Your task to perform on an android device: Open Reddit.com Image 0: 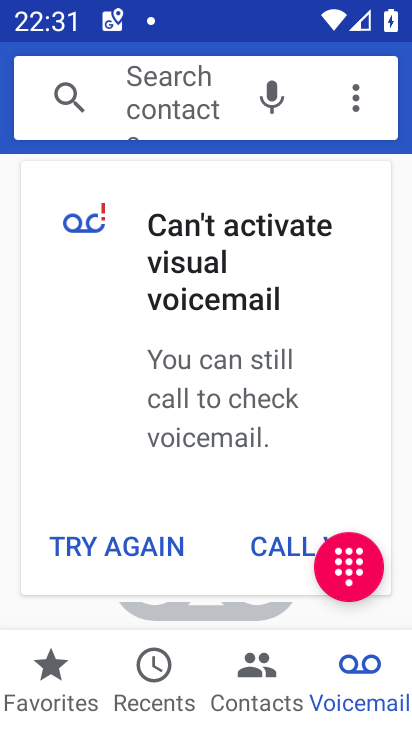
Step 0: press home button
Your task to perform on an android device: Open Reddit.com Image 1: 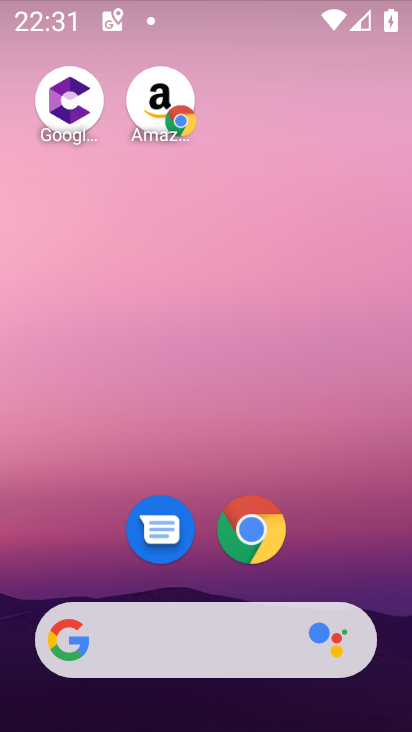
Step 1: drag from (320, 568) to (399, 39)
Your task to perform on an android device: Open Reddit.com Image 2: 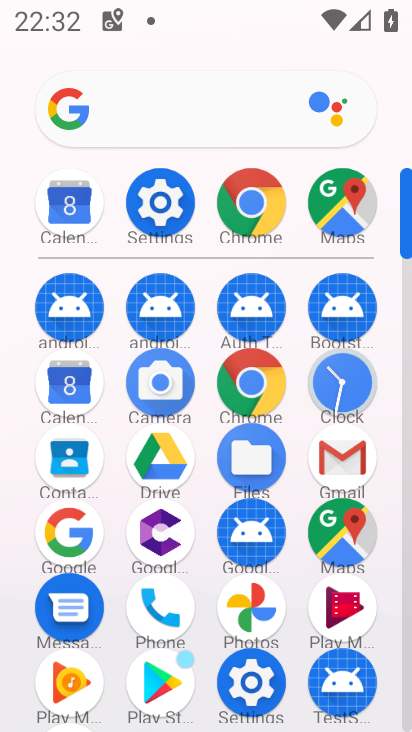
Step 2: click (242, 364)
Your task to perform on an android device: Open Reddit.com Image 3: 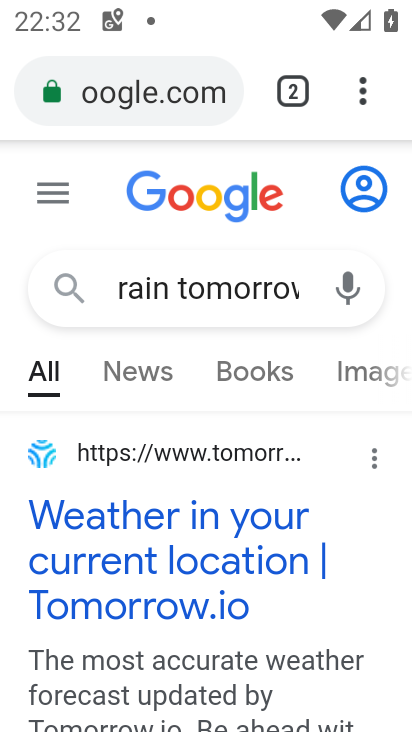
Step 3: click (216, 92)
Your task to perform on an android device: Open Reddit.com Image 4: 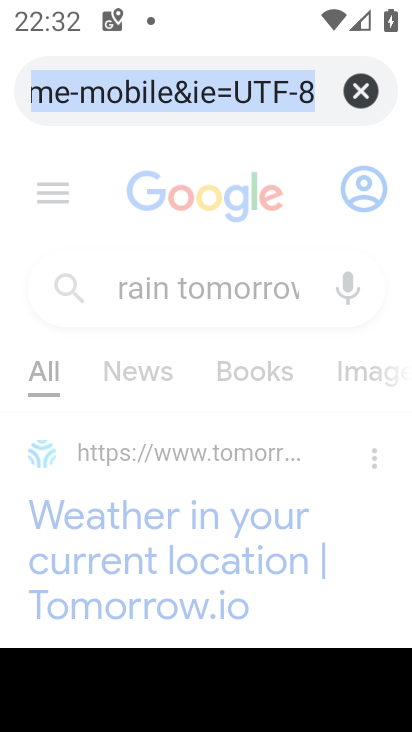
Step 4: click (371, 91)
Your task to perform on an android device: Open Reddit.com Image 5: 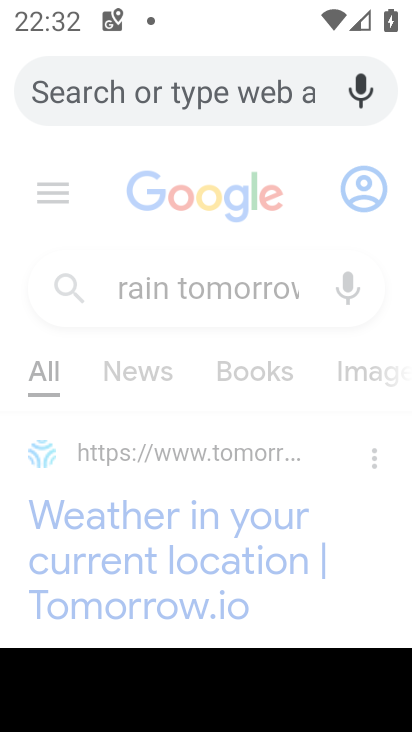
Step 5: type "reddit.com"
Your task to perform on an android device: Open Reddit.com Image 6: 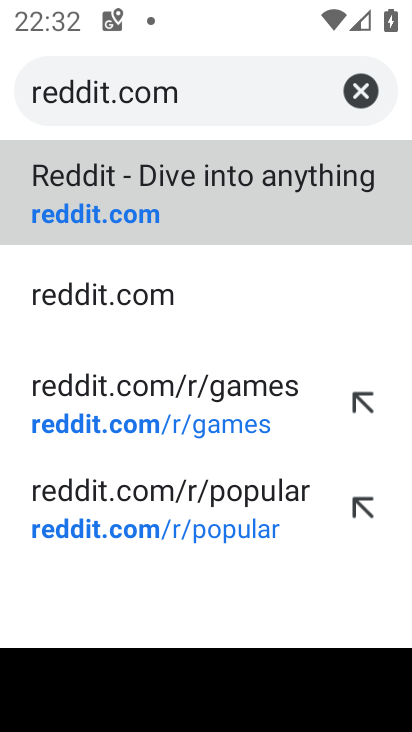
Step 6: click (239, 216)
Your task to perform on an android device: Open Reddit.com Image 7: 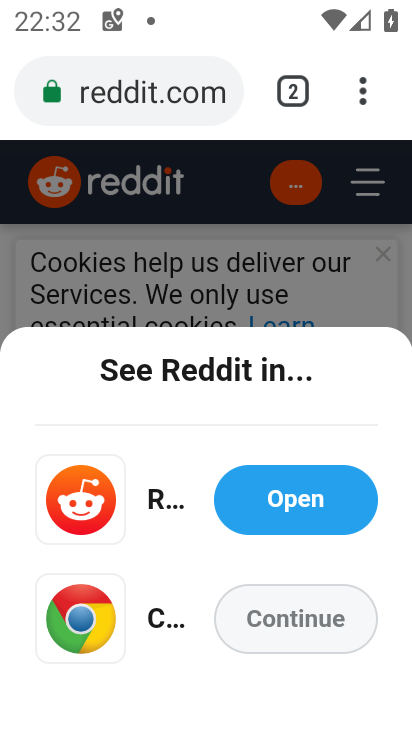
Step 7: task complete